Your task to perform on an android device: check storage Image 0: 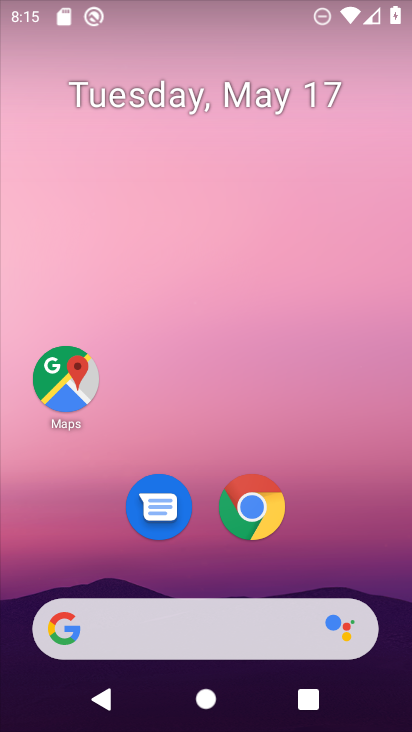
Step 0: drag from (362, 583) to (308, 3)
Your task to perform on an android device: check storage Image 1: 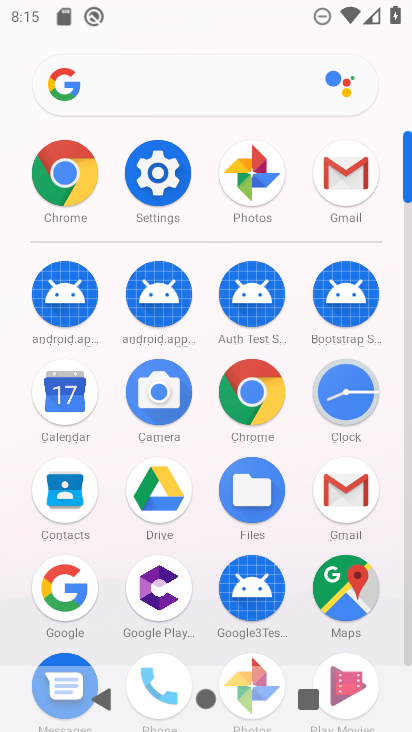
Step 1: click (150, 176)
Your task to perform on an android device: check storage Image 2: 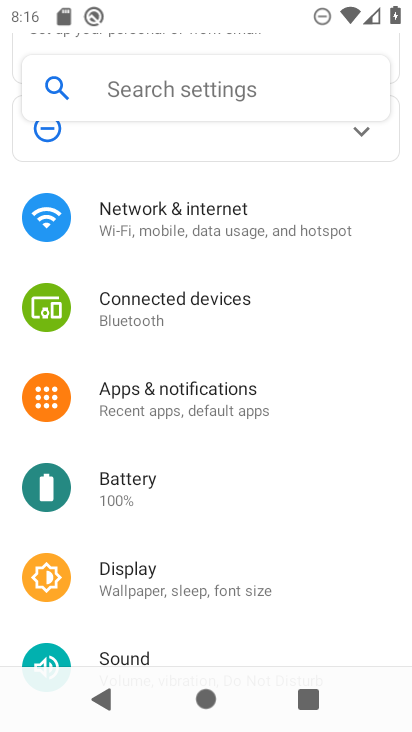
Step 2: drag from (246, 491) to (226, 221)
Your task to perform on an android device: check storage Image 3: 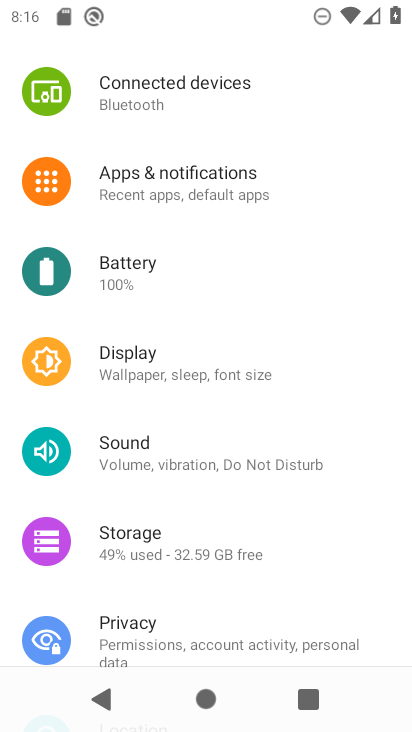
Step 3: click (127, 545)
Your task to perform on an android device: check storage Image 4: 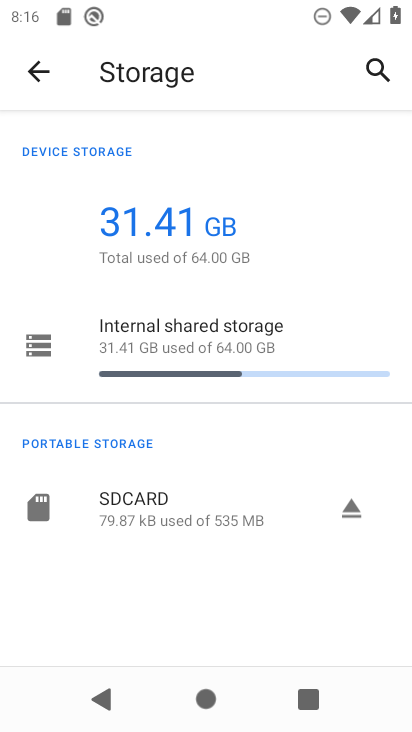
Step 4: click (177, 347)
Your task to perform on an android device: check storage Image 5: 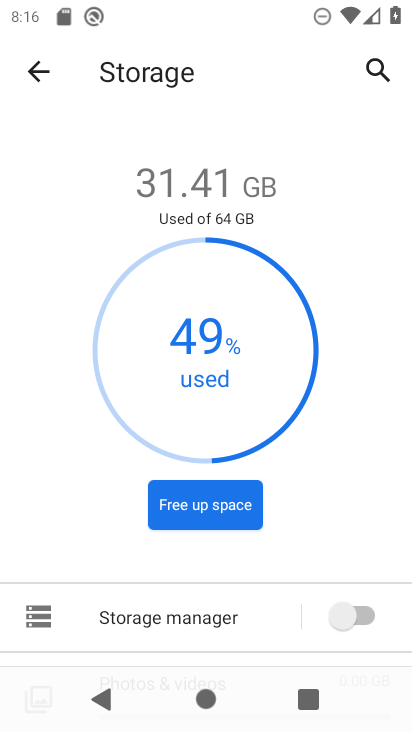
Step 5: task complete